Your task to perform on an android device: Turn on the flashlight Image 0: 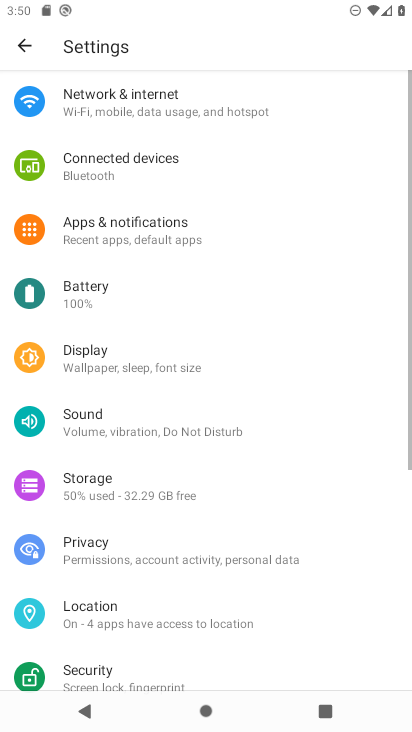
Step 0: press home button
Your task to perform on an android device: Turn on the flashlight Image 1: 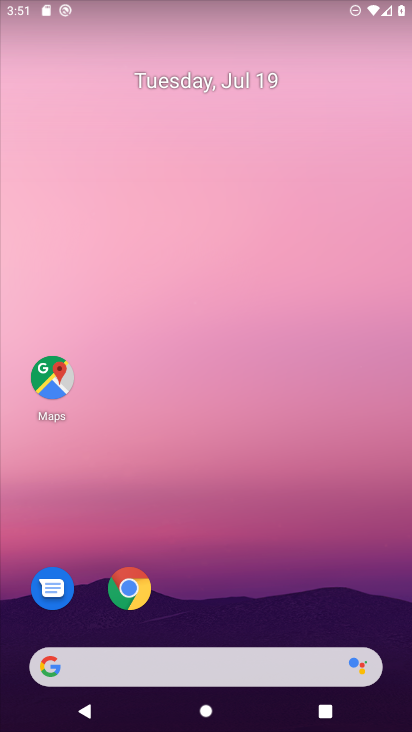
Step 1: drag from (196, 621) to (160, 20)
Your task to perform on an android device: Turn on the flashlight Image 2: 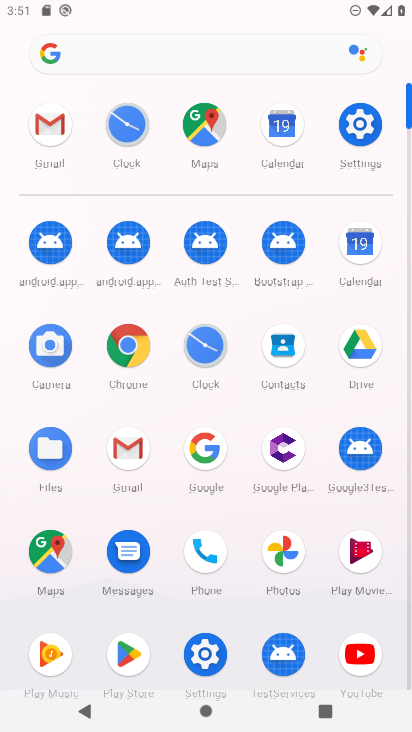
Step 2: click (354, 131)
Your task to perform on an android device: Turn on the flashlight Image 3: 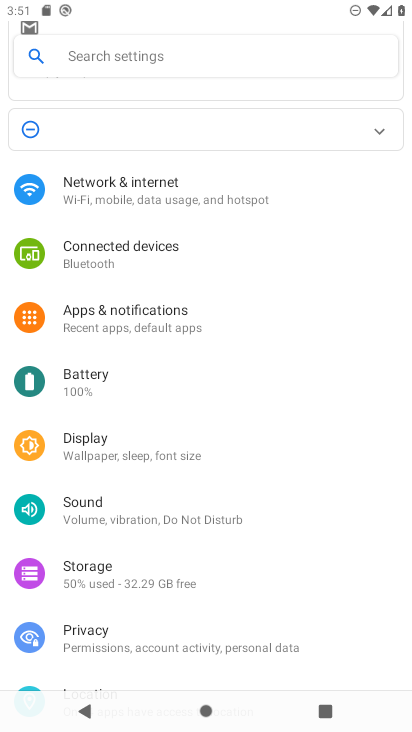
Step 3: task complete